Your task to perform on an android device: turn off smart reply in the gmail app Image 0: 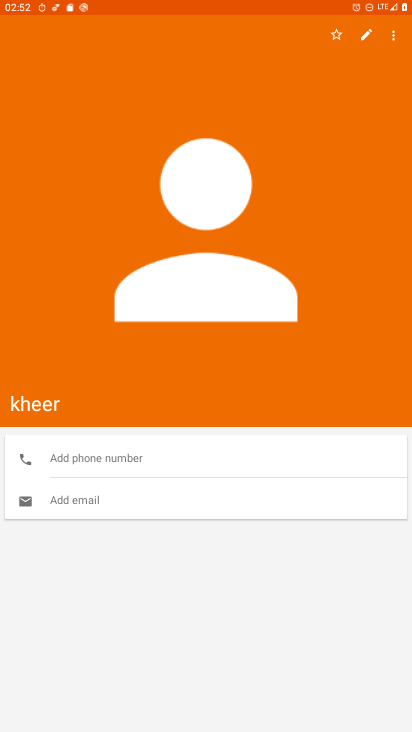
Step 0: press home button
Your task to perform on an android device: turn off smart reply in the gmail app Image 1: 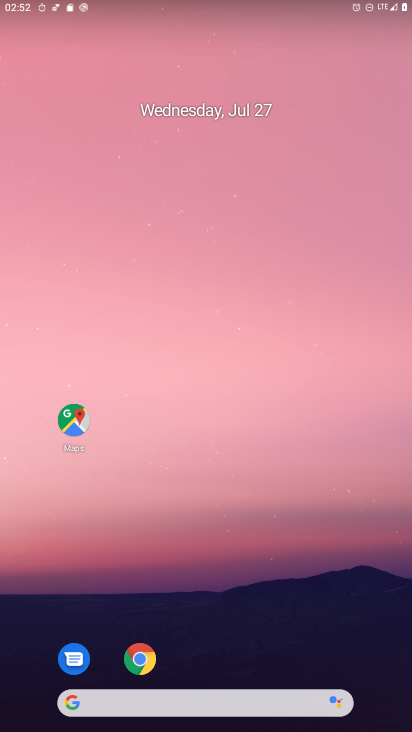
Step 1: drag from (292, 621) to (285, 167)
Your task to perform on an android device: turn off smart reply in the gmail app Image 2: 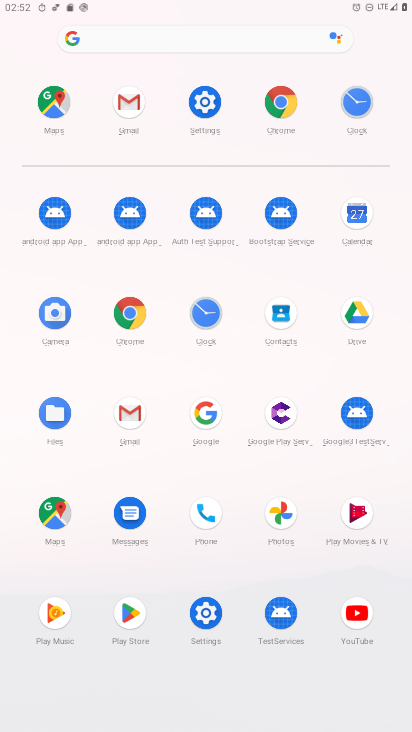
Step 2: click (133, 101)
Your task to perform on an android device: turn off smart reply in the gmail app Image 3: 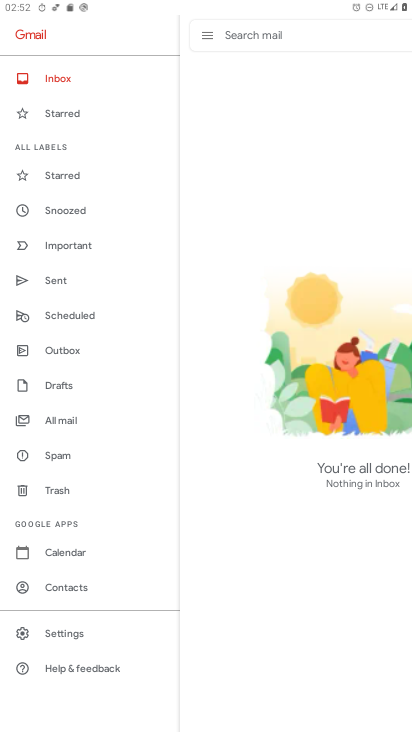
Step 3: click (70, 634)
Your task to perform on an android device: turn off smart reply in the gmail app Image 4: 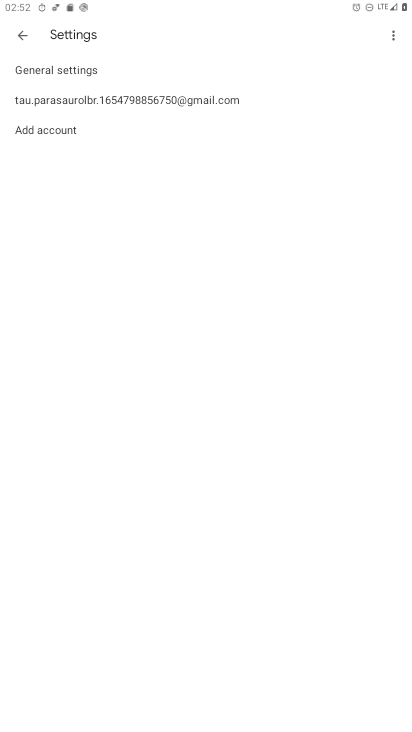
Step 4: click (209, 100)
Your task to perform on an android device: turn off smart reply in the gmail app Image 5: 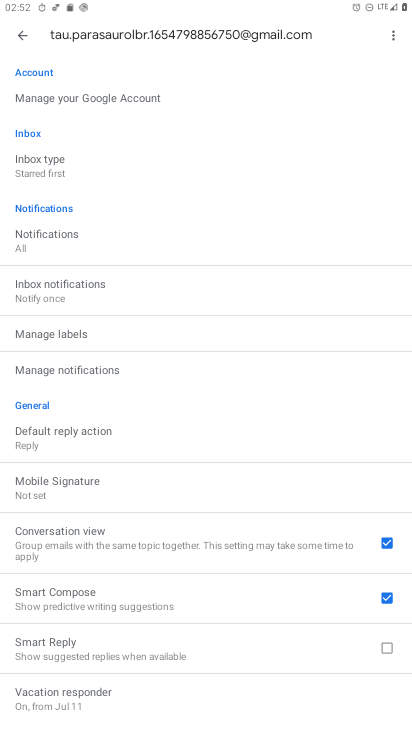
Step 5: task complete